Your task to perform on an android device: set the stopwatch Image 0: 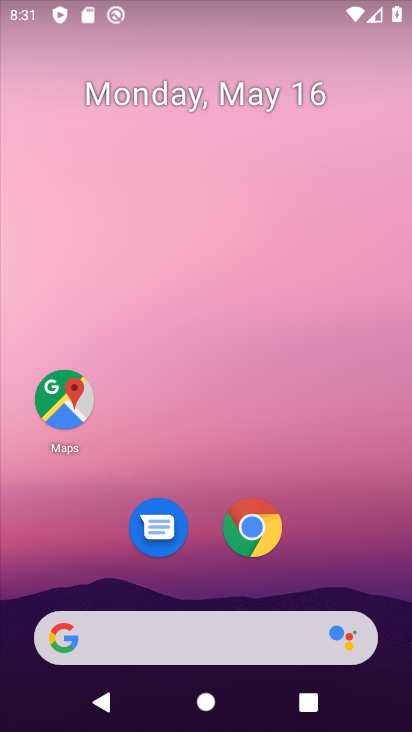
Step 0: drag from (89, 607) to (201, 58)
Your task to perform on an android device: set the stopwatch Image 1: 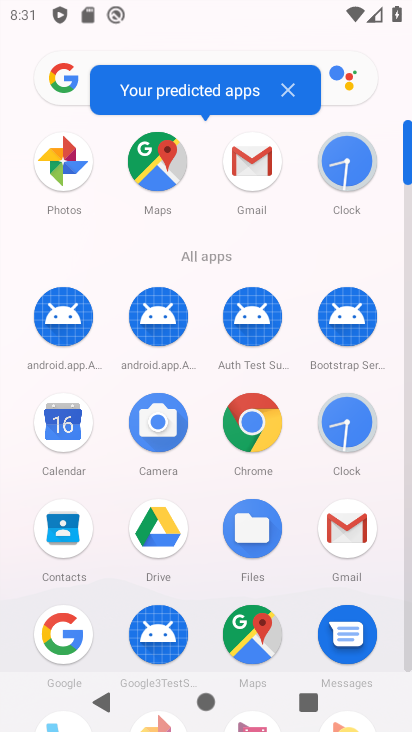
Step 1: click (335, 431)
Your task to perform on an android device: set the stopwatch Image 2: 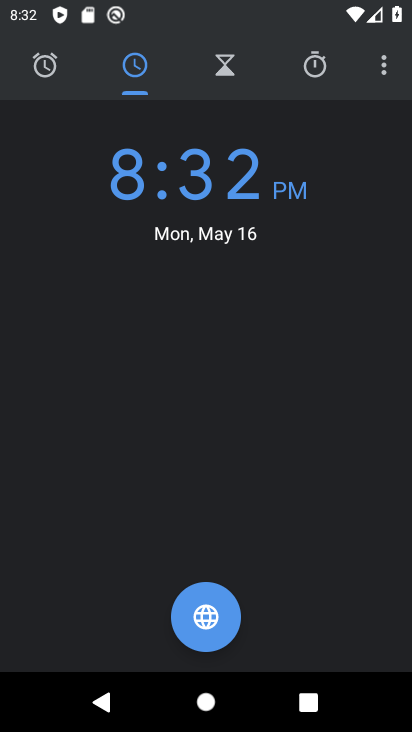
Step 2: click (321, 72)
Your task to perform on an android device: set the stopwatch Image 3: 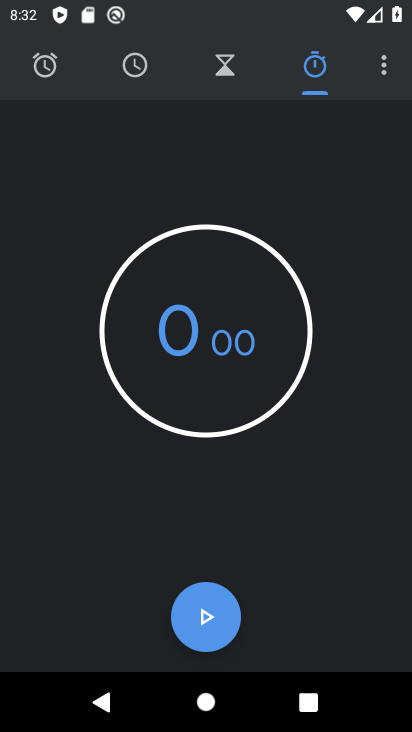
Step 3: click (238, 624)
Your task to perform on an android device: set the stopwatch Image 4: 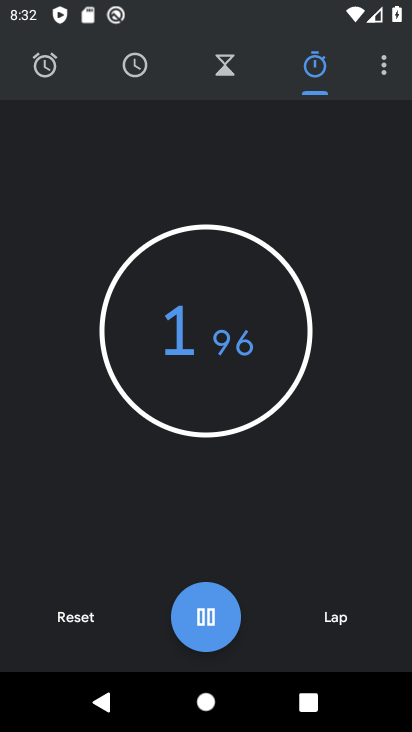
Step 4: task complete